Your task to perform on an android device: turn on javascript in the chrome app Image 0: 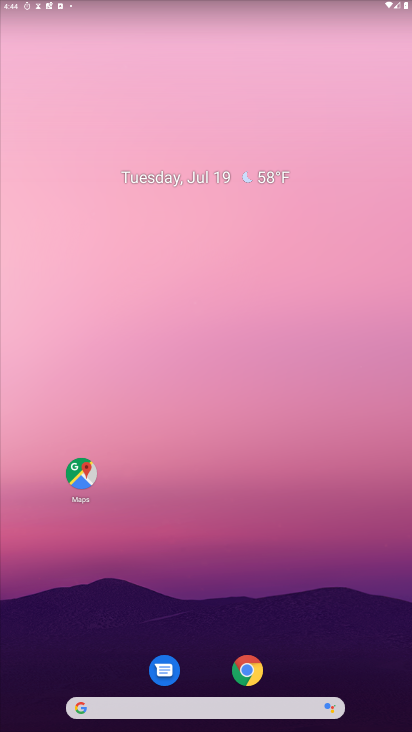
Step 0: drag from (211, 718) to (246, 0)
Your task to perform on an android device: turn on javascript in the chrome app Image 1: 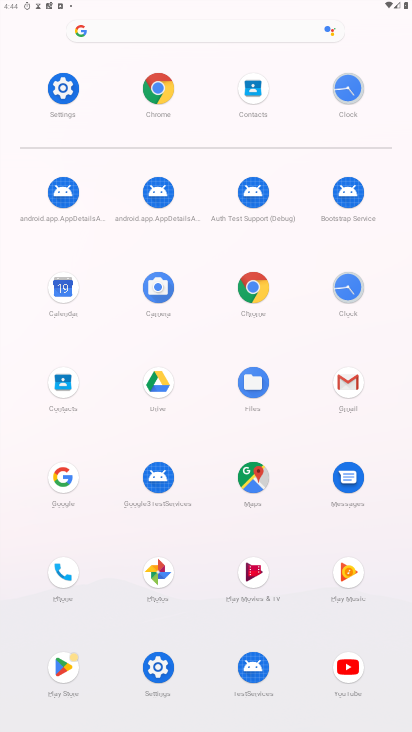
Step 1: click (251, 298)
Your task to perform on an android device: turn on javascript in the chrome app Image 2: 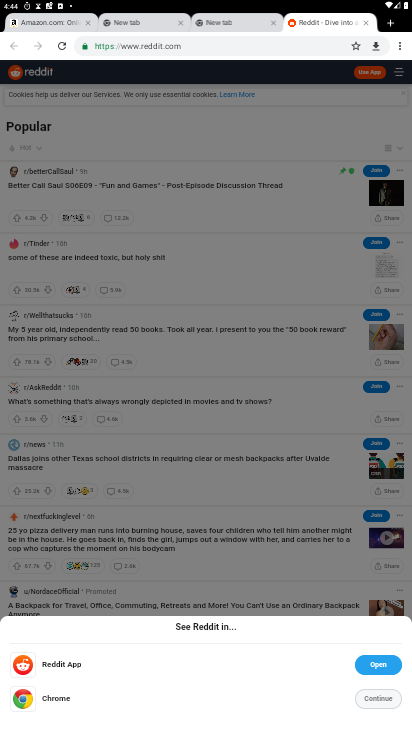
Step 2: click (403, 47)
Your task to perform on an android device: turn on javascript in the chrome app Image 3: 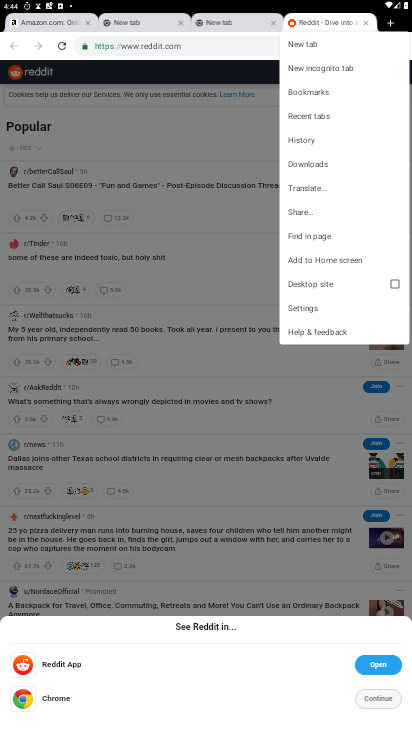
Step 3: click (308, 302)
Your task to perform on an android device: turn on javascript in the chrome app Image 4: 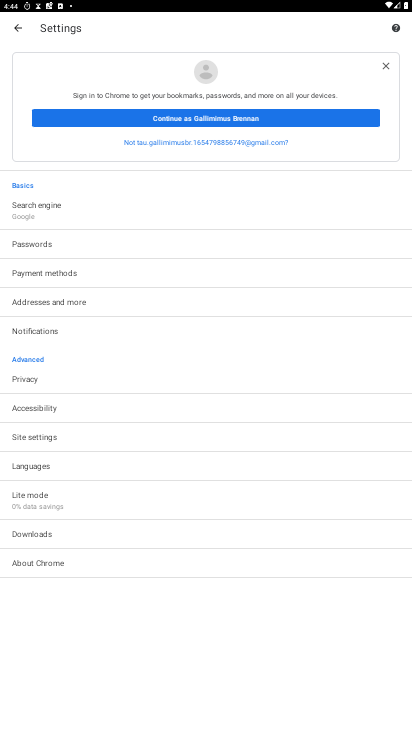
Step 4: click (50, 436)
Your task to perform on an android device: turn on javascript in the chrome app Image 5: 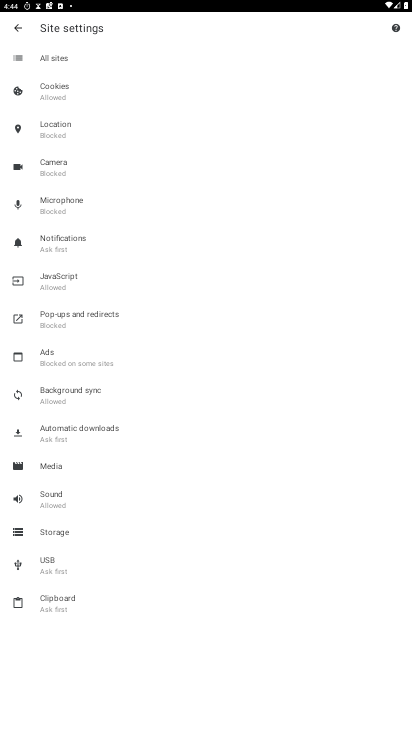
Step 5: click (59, 277)
Your task to perform on an android device: turn on javascript in the chrome app Image 6: 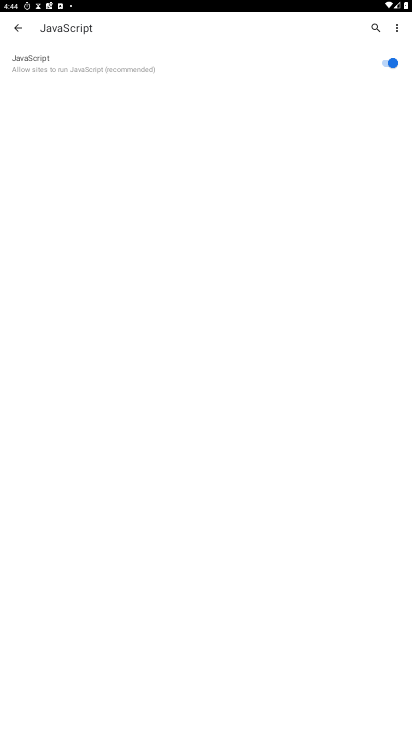
Step 6: task complete